Your task to perform on an android device: Open Google Maps Image 0: 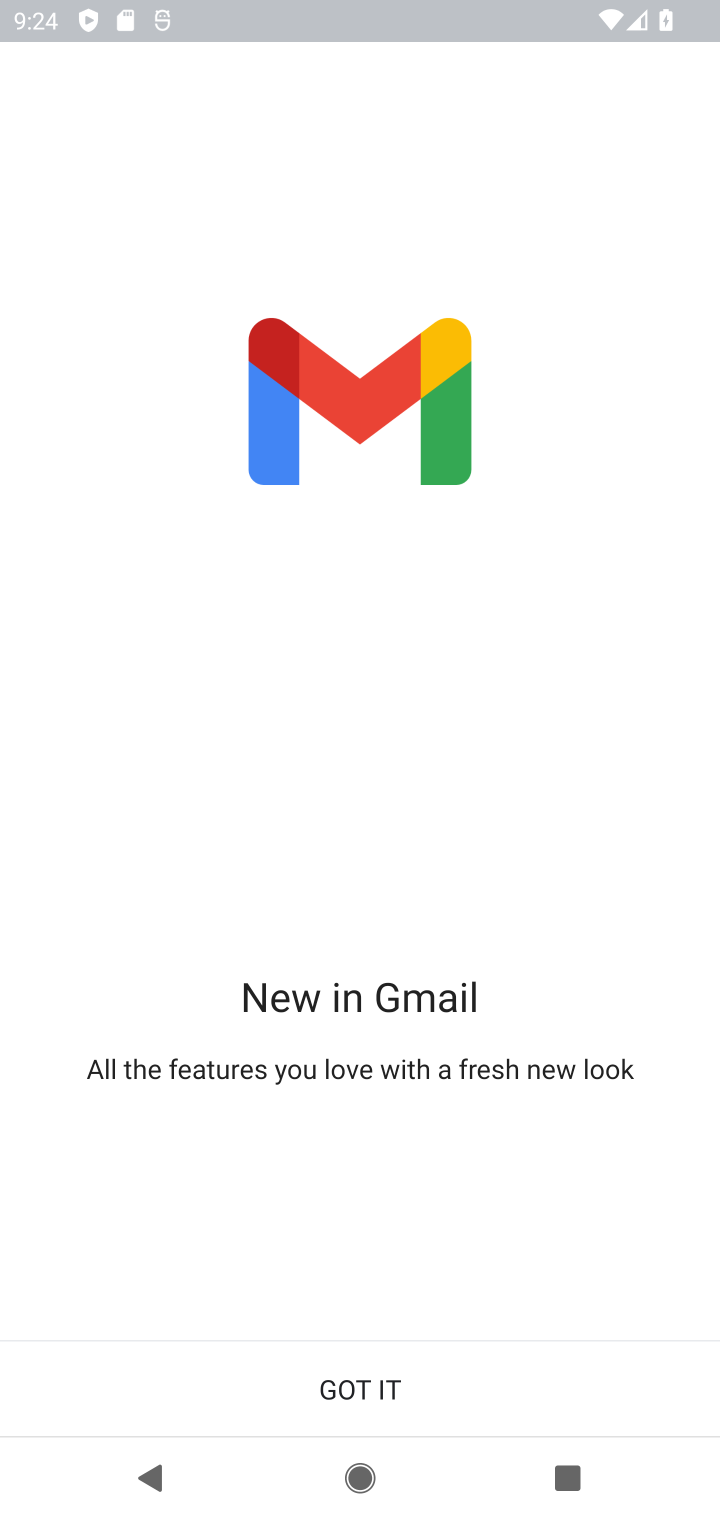
Step 0: press home button
Your task to perform on an android device: Open Google Maps Image 1: 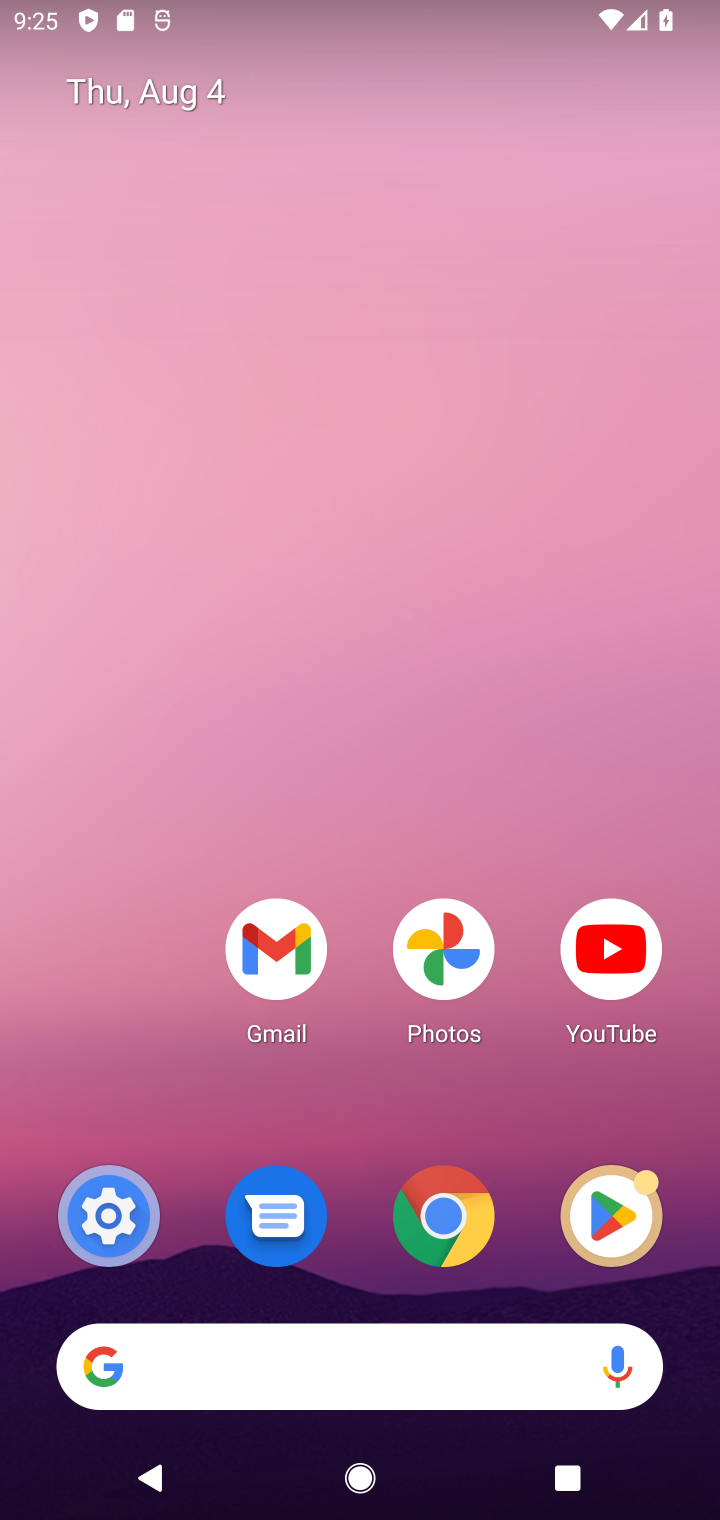
Step 1: drag from (340, 1372) to (452, 232)
Your task to perform on an android device: Open Google Maps Image 2: 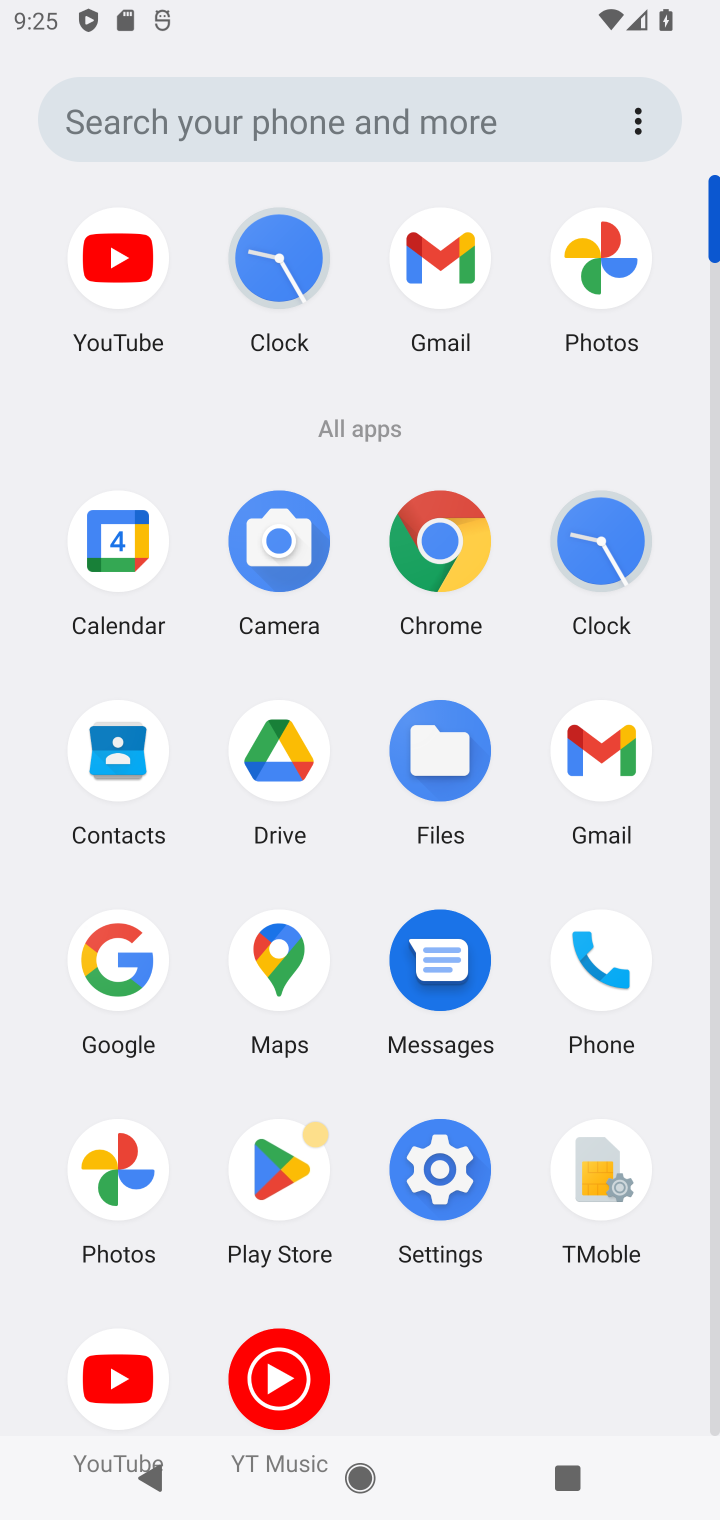
Step 2: click (279, 952)
Your task to perform on an android device: Open Google Maps Image 3: 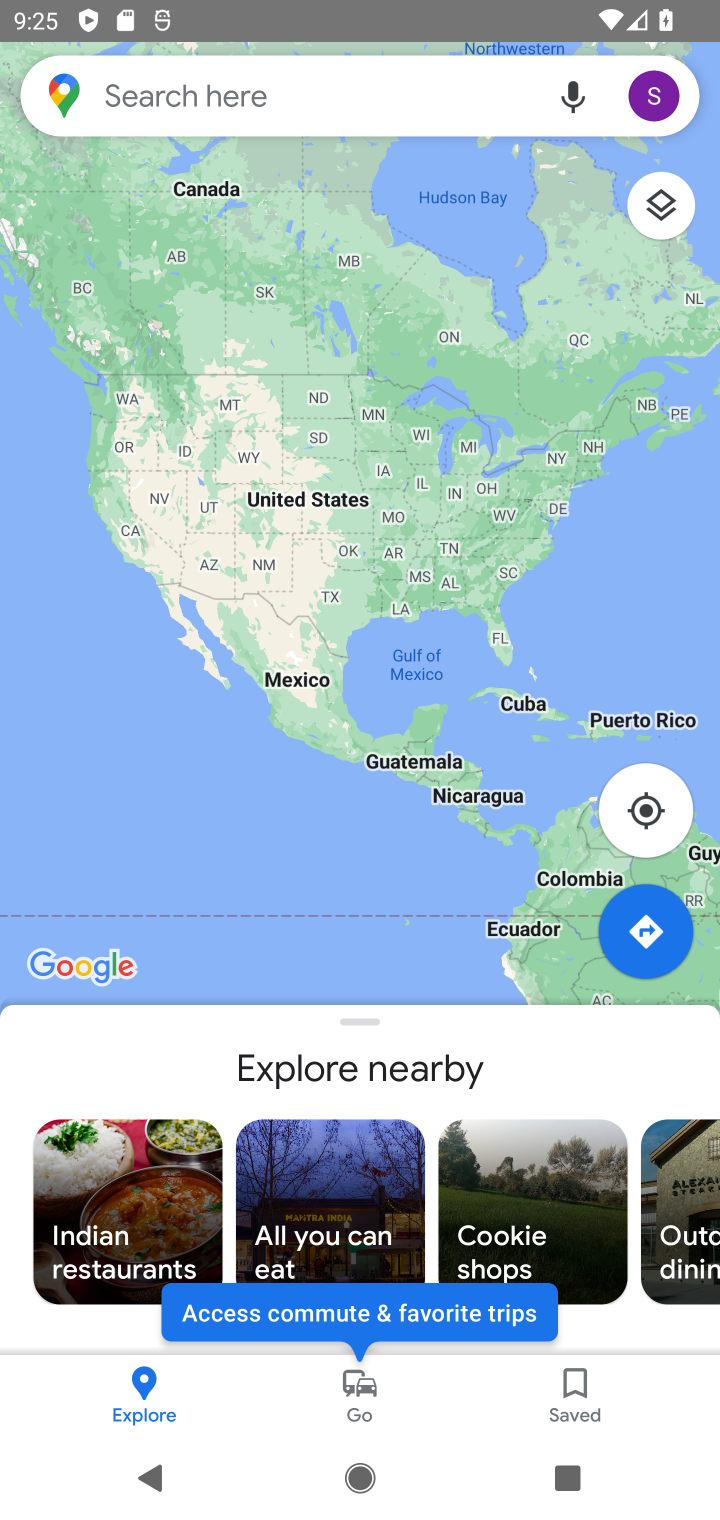
Step 3: task complete